Your task to perform on an android device: Open Google Chrome Image 0: 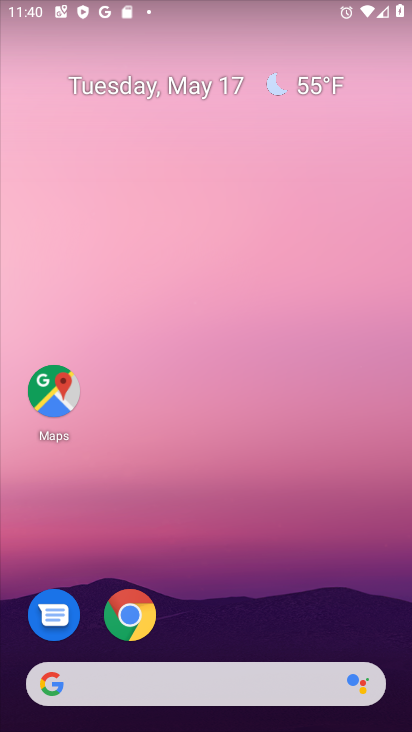
Step 0: click (128, 619)
Your task to perform on an android device: Open Google Chrome Image 1: 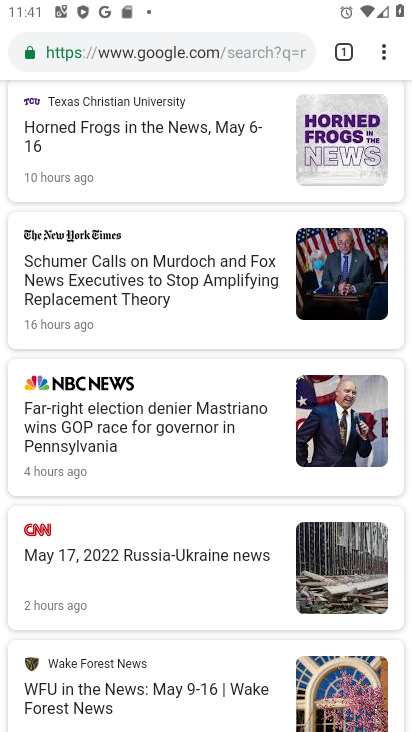
Step 1: task complete